Your task to perform on an android device: turn off smart reply in the gmail app Image 0: 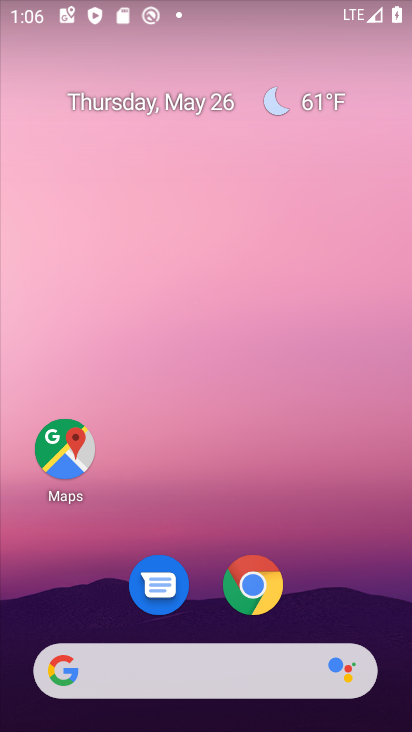
Step 0: drag from (326, 494) to (345, 52)
Your task to perform on an android device: turn off smart reply in the gmail app Image 1: 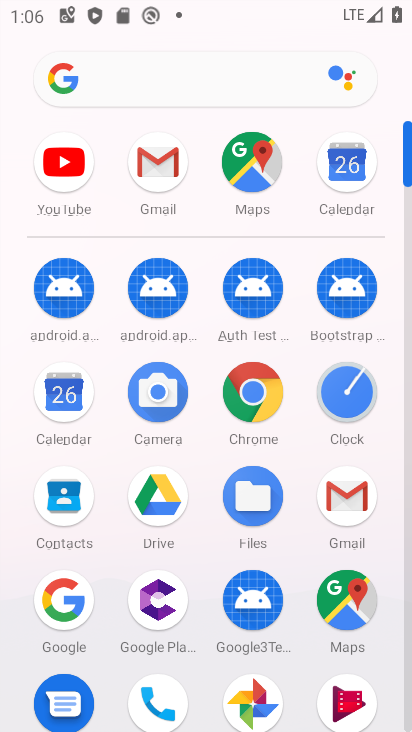
Step 1: click (177, 170)
Your task to perform on an android device: turn off smart reply in the gmail app Image 2: 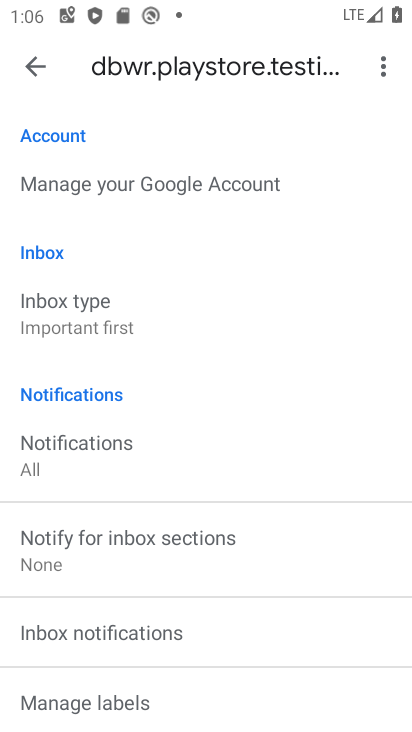
Step 2: drag from (208, 601) to (274, 125)
Your task to perform on an android device: turn off smart reply in the gmail app Image 3: 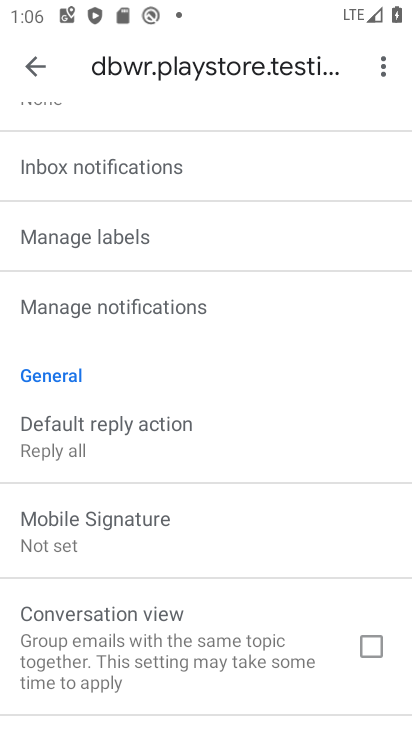
Step 3: drag from (216, 549) to (239, 168)
Your task to perform on an android device: turn off smart reply in the gmail app Image 4: 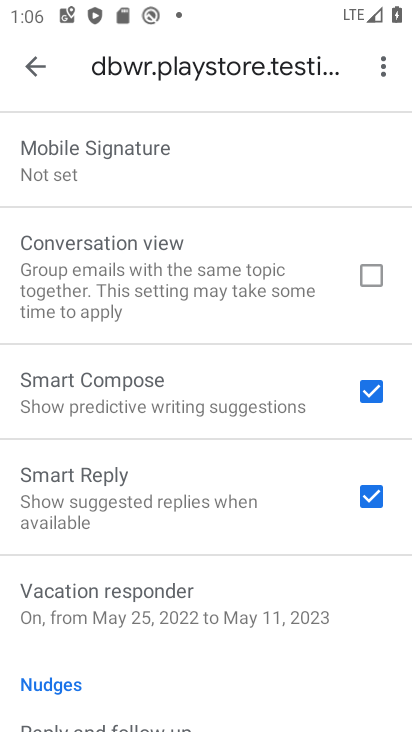
Step 4: click (371, 489)
Your task to perform on an android device: turn off smart reply in the gmail app Image 5: 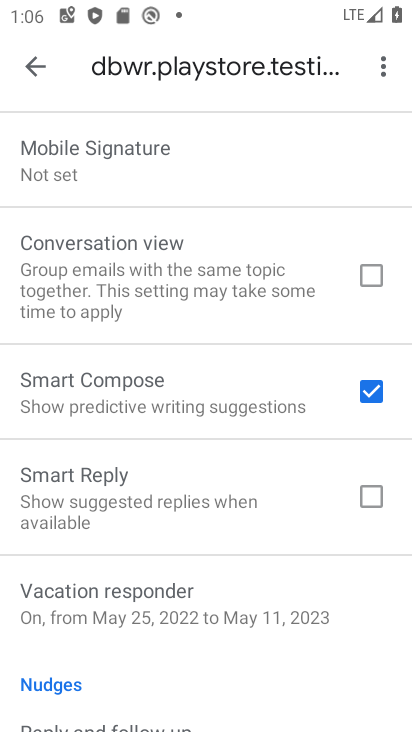
Step 5: task complete